Your task to perform on an android device: Show me popular games on the Play Store Image 0: 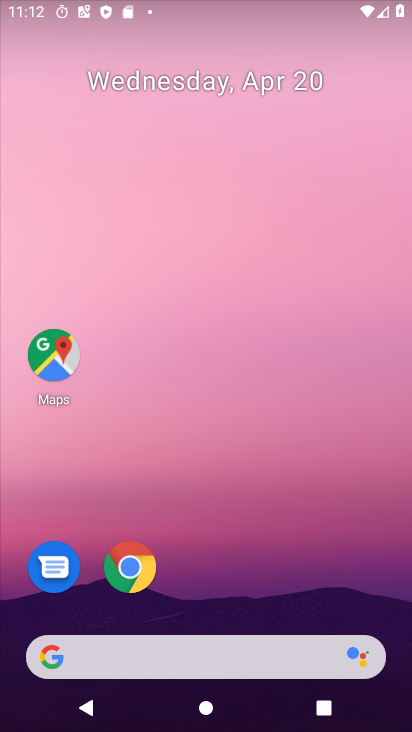
Step 0: drag from (208, 616) to (249, 198)
Your task to perform on an android device: Show me popular games on the Play Store Image 1: 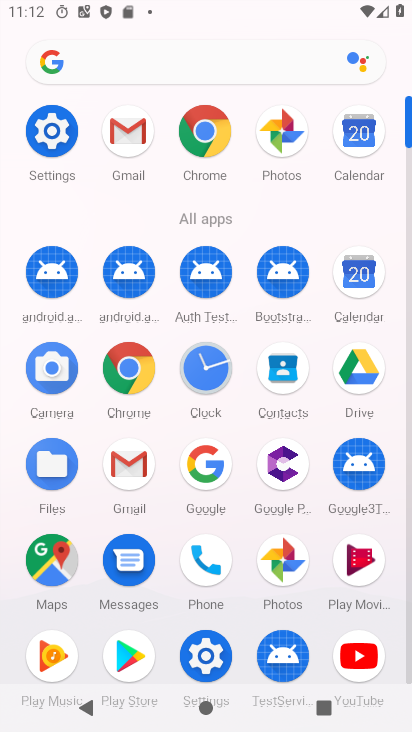
Step 1: click (123, 652)
Your task to perform on an android device: Show me popular games on the Play Store Image 2: 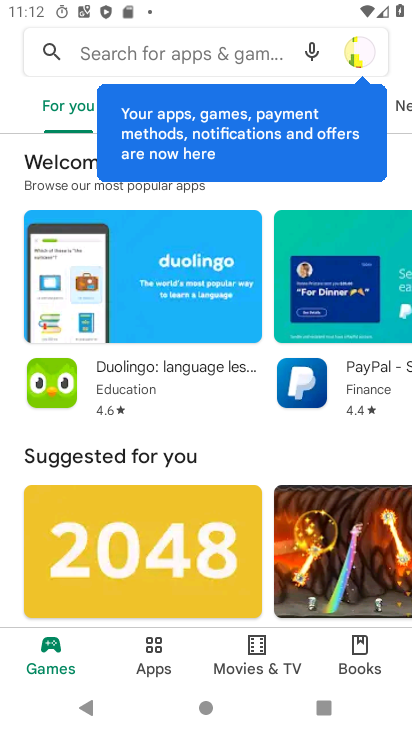
Step 2: click (60, 661)
Your task to perform on an android device: Show me popular games on the Play Store Image 3: 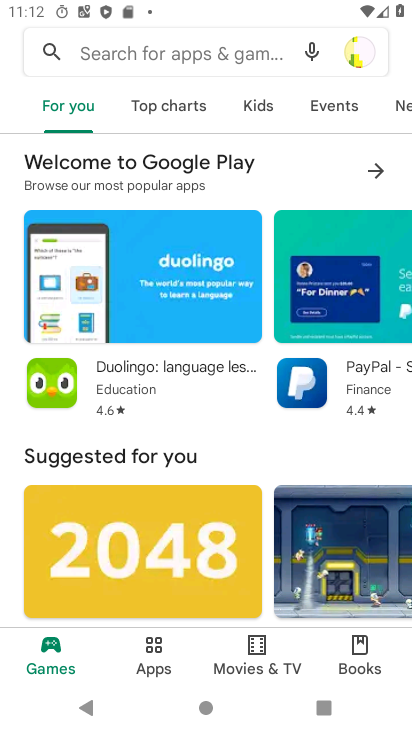
Step 3: task complete